Your task to perform on an android device: turn vacation reply on in the gmail app Image 0: 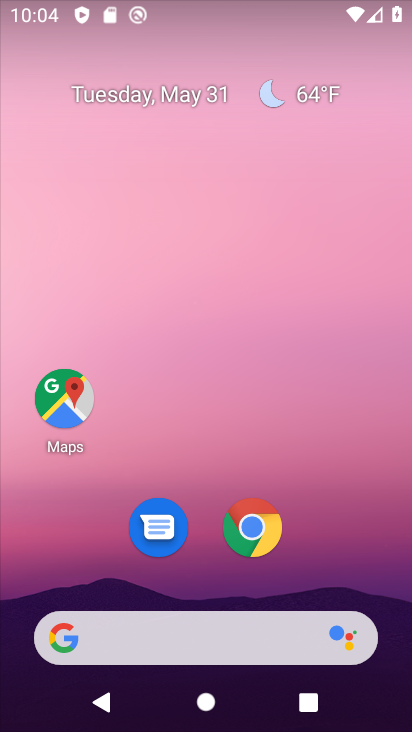
Step 0: drag from (270, 683) to (250, 11)
Your task to perform on an android device: turn vacation reply on in the gmail app Image 1: 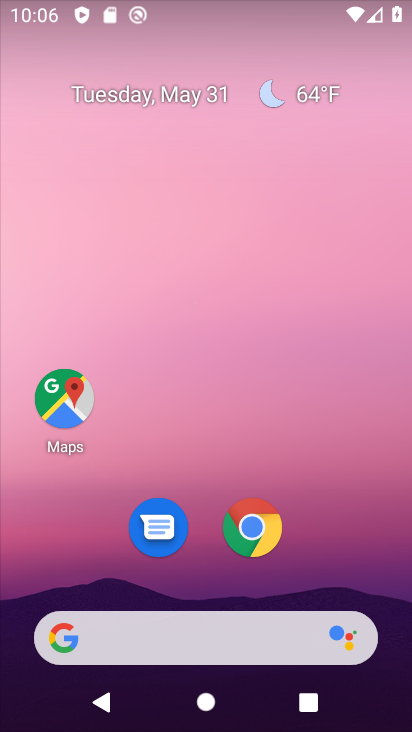
Step 1: drag from (265, 632) to (393, 306)
Your task to perform on an android device: turn vacation reply on in the gmail app Image 2: 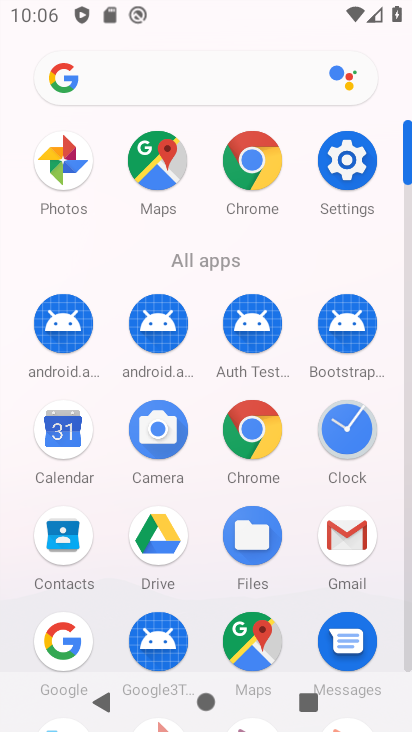
Step 2: click (338, 539)
Your task to perform on an android device: turn vacation reply on in the gmail app Image 3: 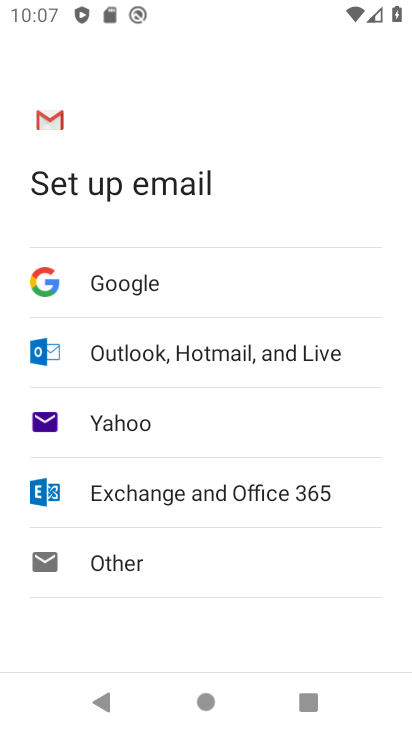
Step 3: press back button
Your task to perform on an android device: turn vacation reply on in the gmail app Image 4: 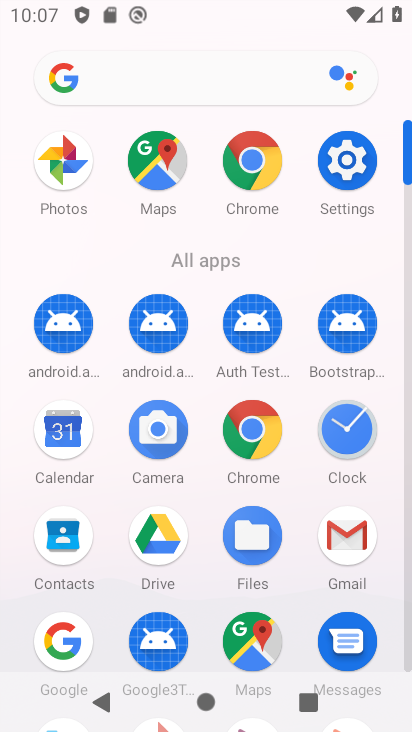
Step 4: click (345, 543)
Your task to perform on an android device: turn vacation reply on in the gmail app Image 5: 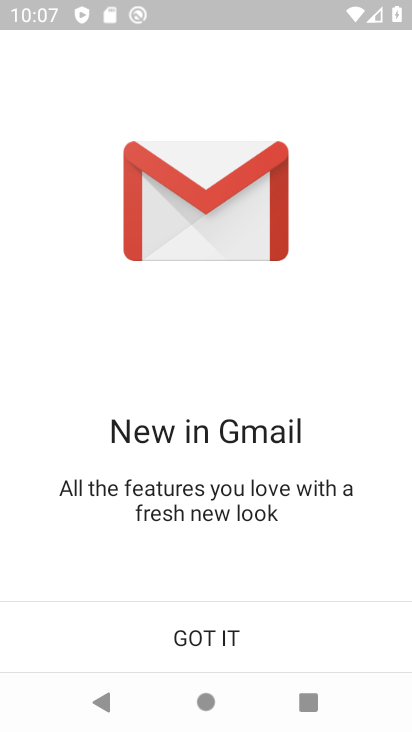
Step 5: click (202, 645)
Your task to perform on an android device: turn vacation reply on in the gmail app Image 6: 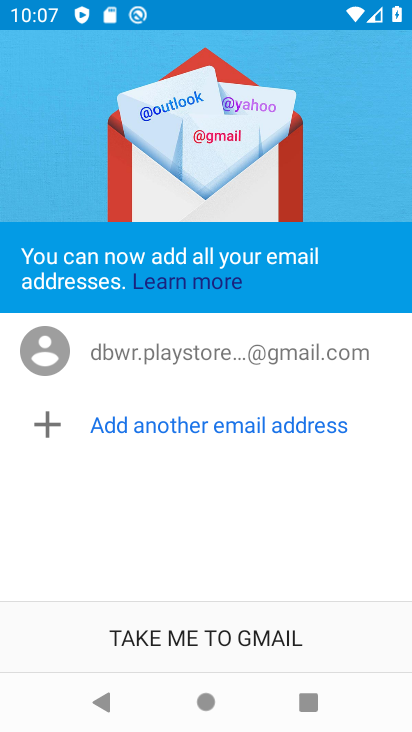
Step 6: click (202, 645)
Your task to perform on an android device: turn vacation reply on in the gmail app Image 7: 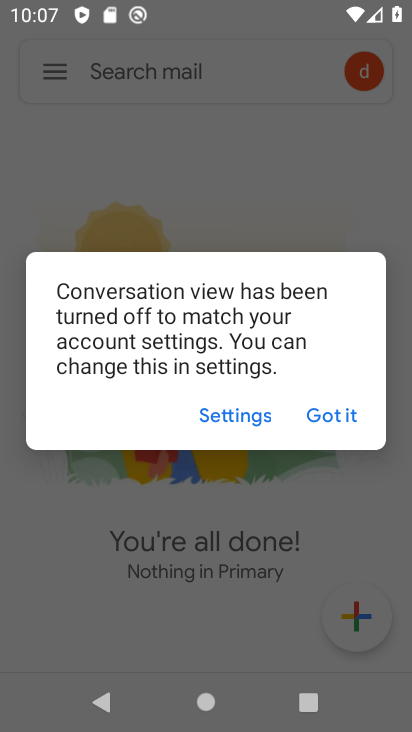
Step 7: click (352, 408)
Your task to perform on an android device: turn vacation reply on in the gmail app Image 8: 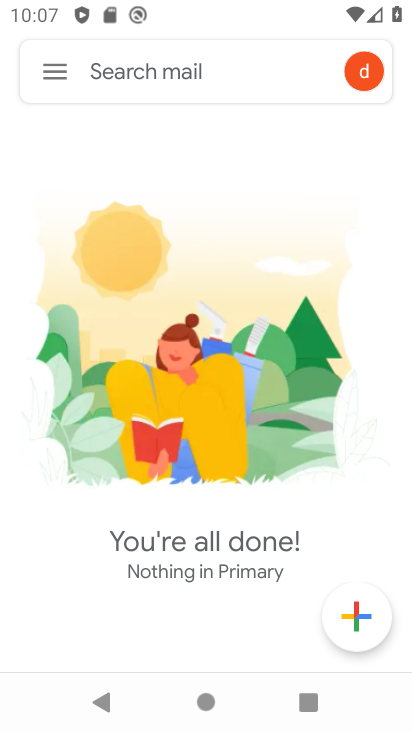
Step 8: click (46, 69)
Your task to perform on an android device: turn vacation reply on in the gmail app Image 9: 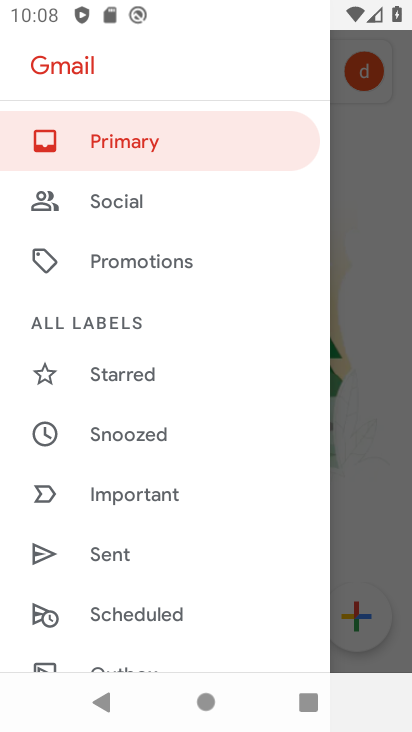
Step 9: drag from (172, 531) to (204, 28)
Your task to perform on an android device: turn vacation reply on in the gmail app Image 10: 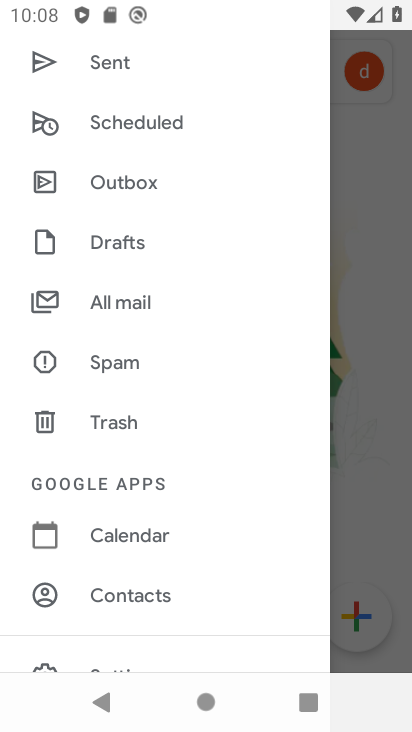
Step 10: drag from (154, 607) to (208, 44)
Your task to perform on an android device: turn vacation reply on in the gmail app Image 11: 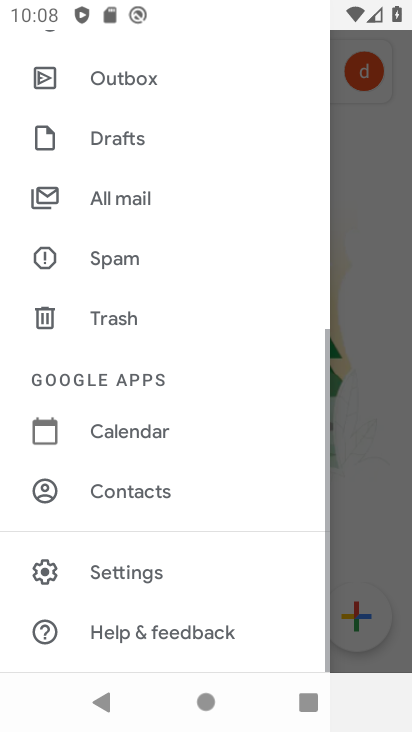
Step 11: click (150, 586)
Your task to perform on an android device: turn vacation reply on in the gmail app Image 12: 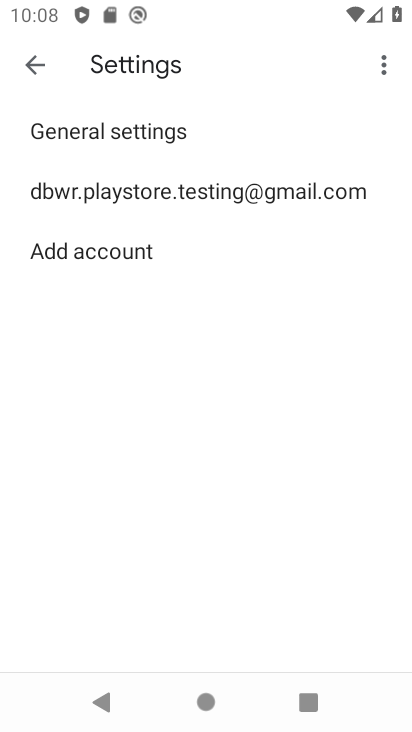
Step 12: click (229, 191)
Your task to perform on an android device: turn vacation reply on in the gmail app Image 13: 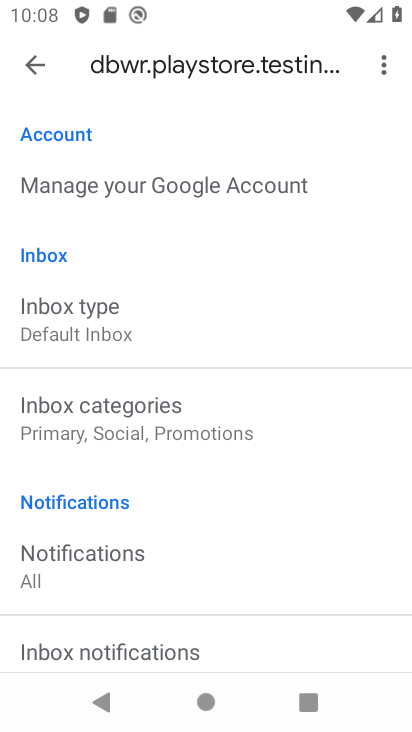
Step 13: drag from (199, 597) to (166, 8)
Your task to perform on an android device: turn vacation reply on in the gmail app Image 14: 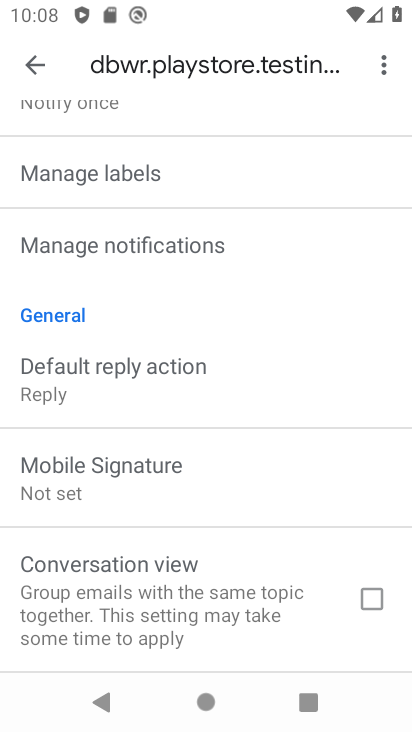
Step 14: drag from (210, 635) to (162, 48)
Your task to perform on an android device: turn vacation reply on in the gmail app Image 15: 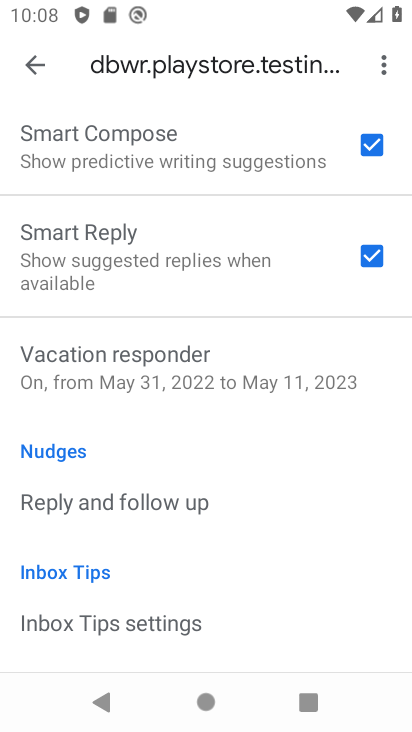
Step 15: click (283, 27)
Your task to perform on an android device: turn vacation reply on in the gmail app Image 16: 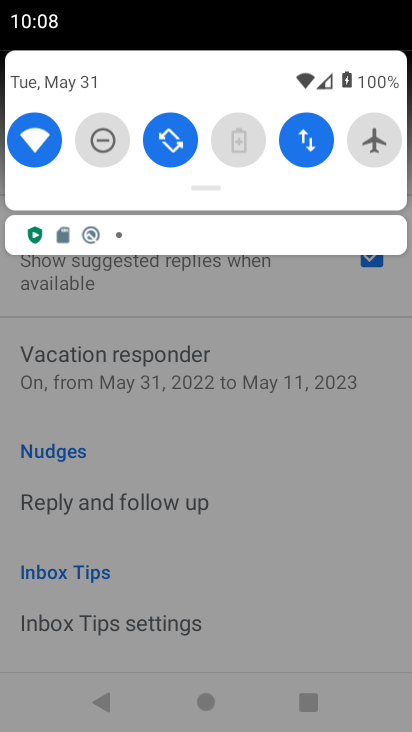
Step 16: click (237, 349)
Your task to perform on an android device: turn vacation reply on in the gmail app Image 17: 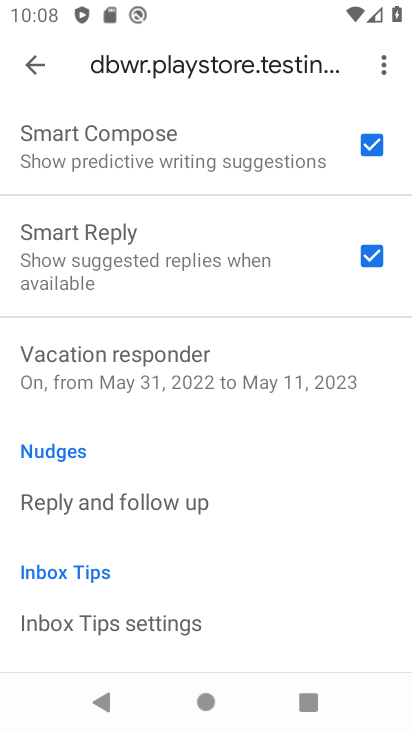
Step 17: click (250, 375)
Your task to perform on an android device: turn vacation reply on in the gmail app Image 18: 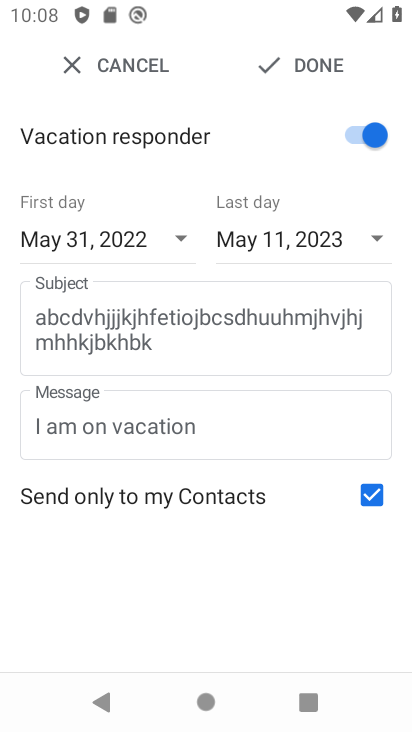
Step 18: click (314, 62)
Your task to perform on an android device: turn vacation reply on in the gmail app Image 19: 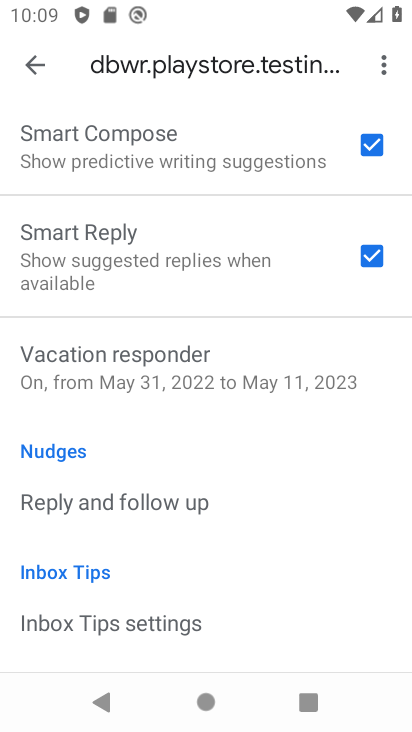
Step 19: task complete